Your task to perform on an android device: turn on airplane mode Image 0: 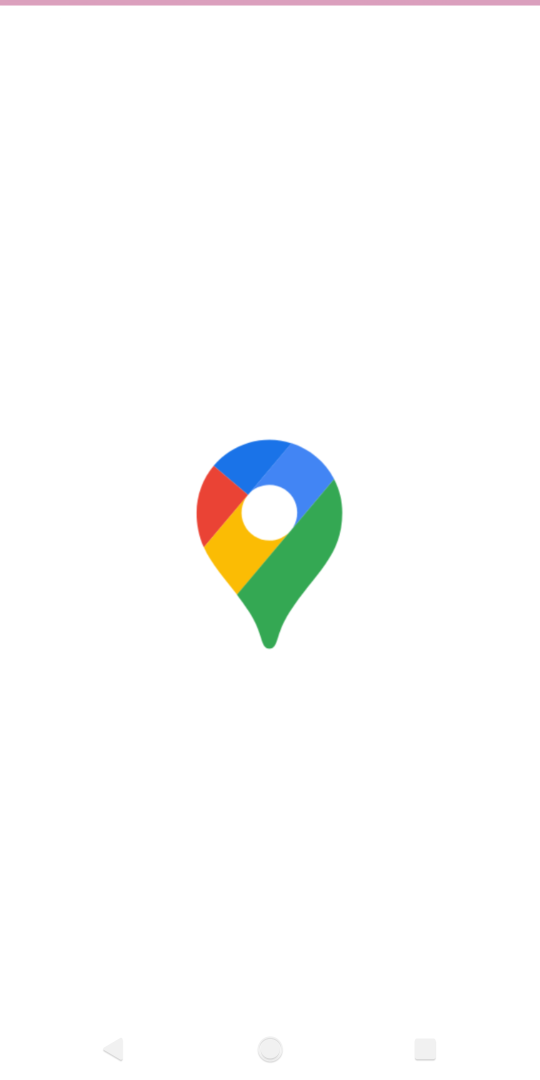
Step 0: press home button
Your task to perform on an android device: turn on airplane mode Image 1: 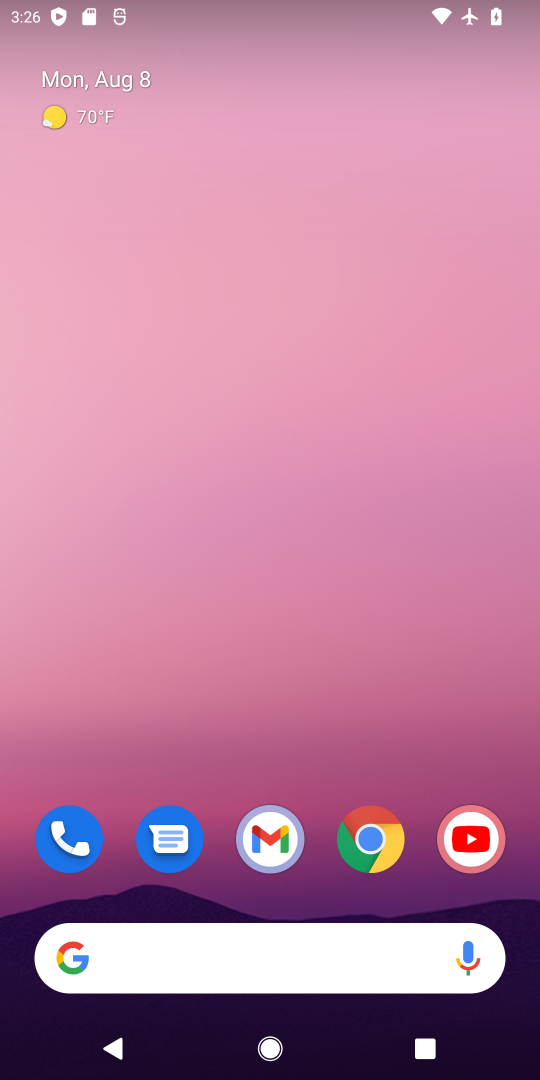
Step 1: drag from (422, 760) to (431, 157)
Your task to perform on an android device: turn on airplane mode Image 2: 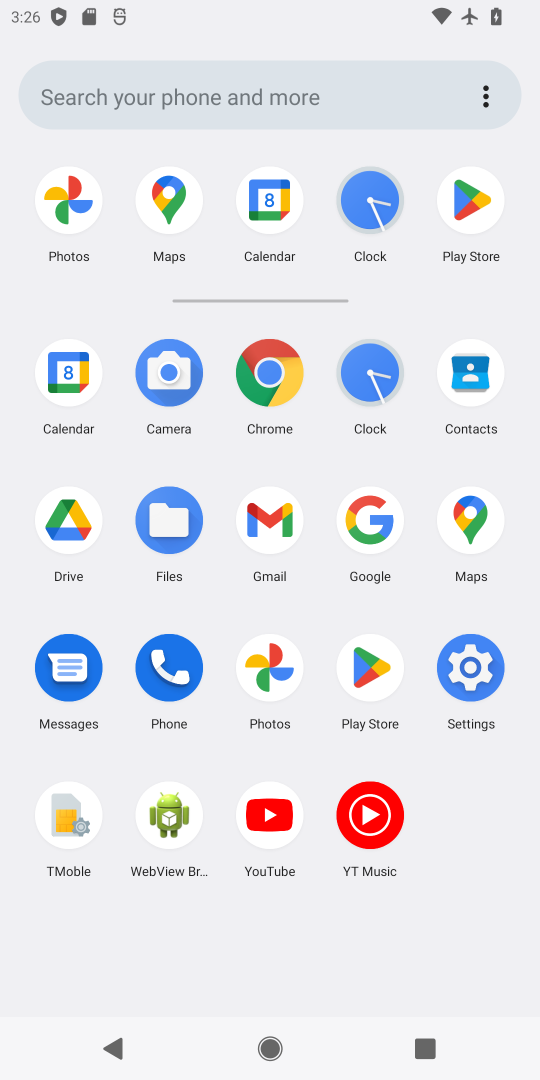
Step 2: click (471, 680)
Your task to perform on an android device: turn on airplane mode Image 3: 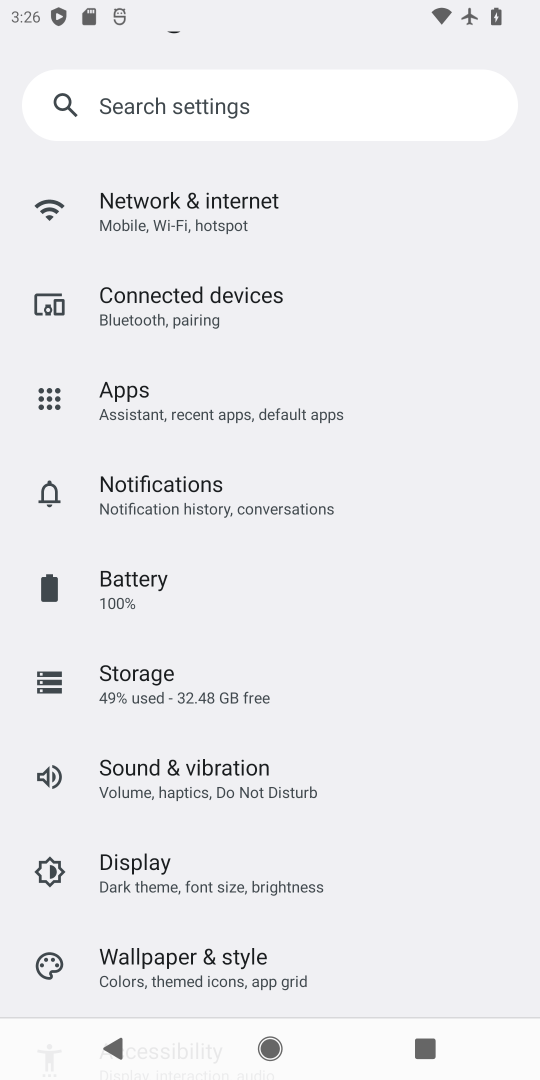
Step 3: drag from (414, 858) to (435, 728)
Your task to perform on an android device: turn on airplane mode Image 4: 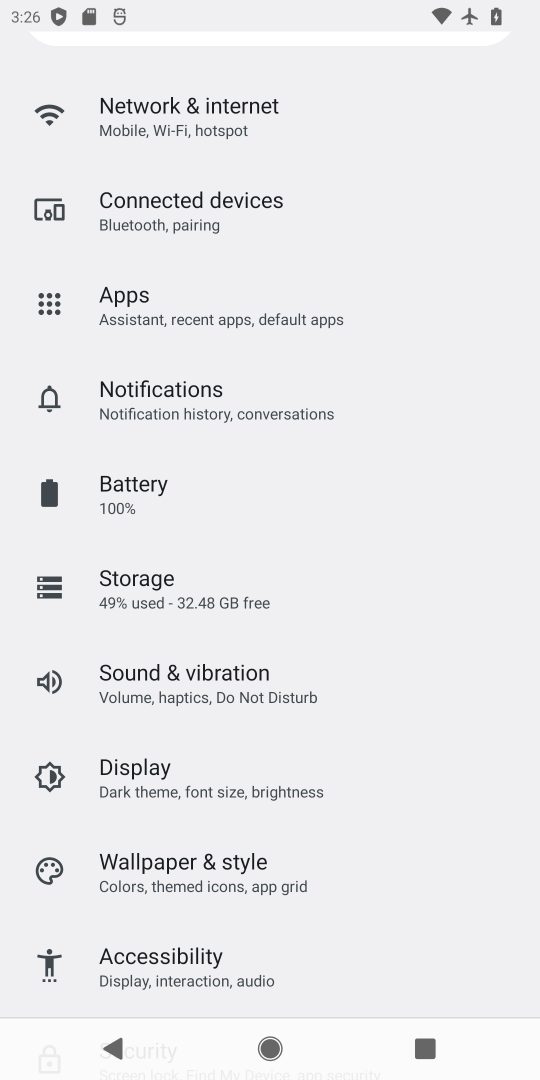
Step 4: drag from (446, 900) to (446, 696)
Your task to perform on an android device: turn on airplane mode Image 5: 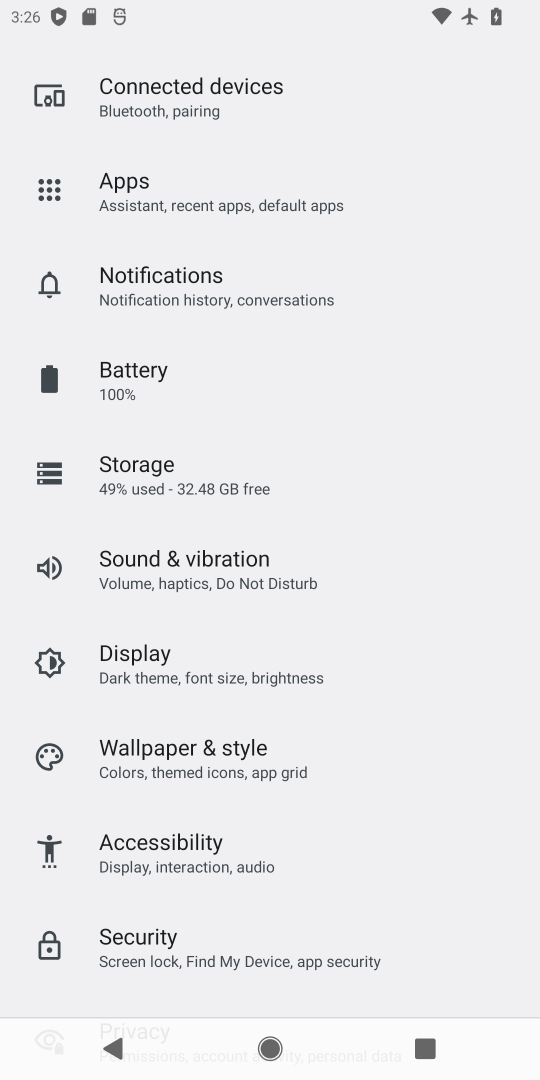
Step 5: drag from (449, 915) to (477, 552)
Your task to perform on an android device: turn on airplane mode Image 6: 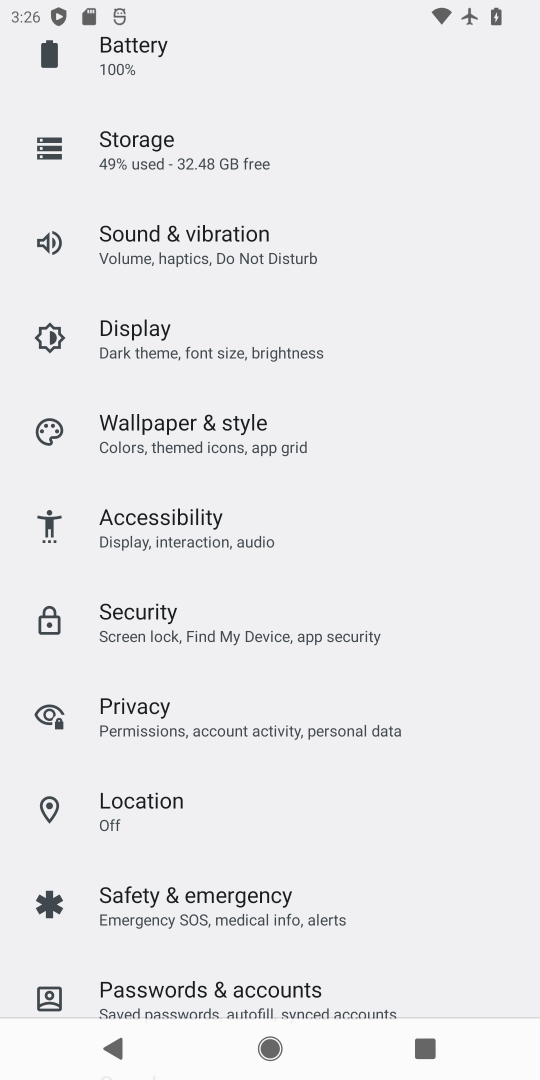
Step 6: drag from (468, 385) to (473, 561)
Your task to perform on an android device: turn on airplane mode Image 7: 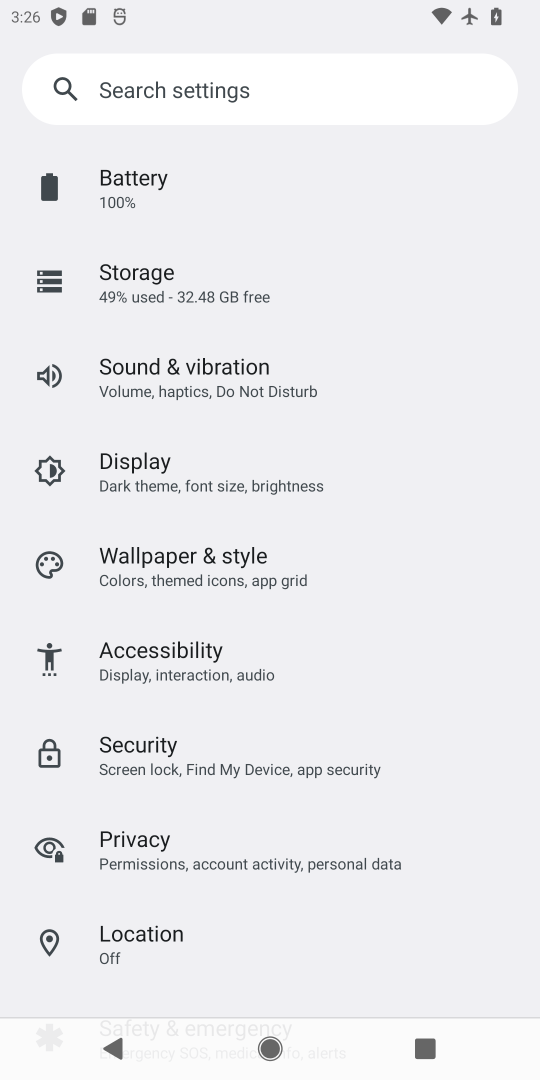
Step 7: drag from (455, 303) to (451, 502)
Your task to perform on an android device: turn on airplane mode Image 8: 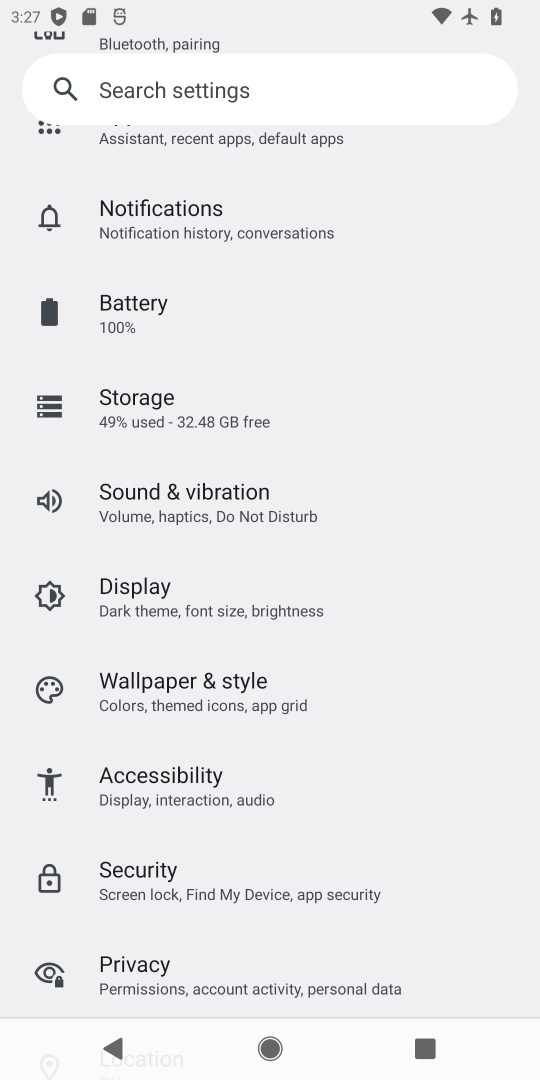
Step 8: drag from (436, 230) to (423, 470)
Your task to perform on an android device: turn on airplane mode Image 9: 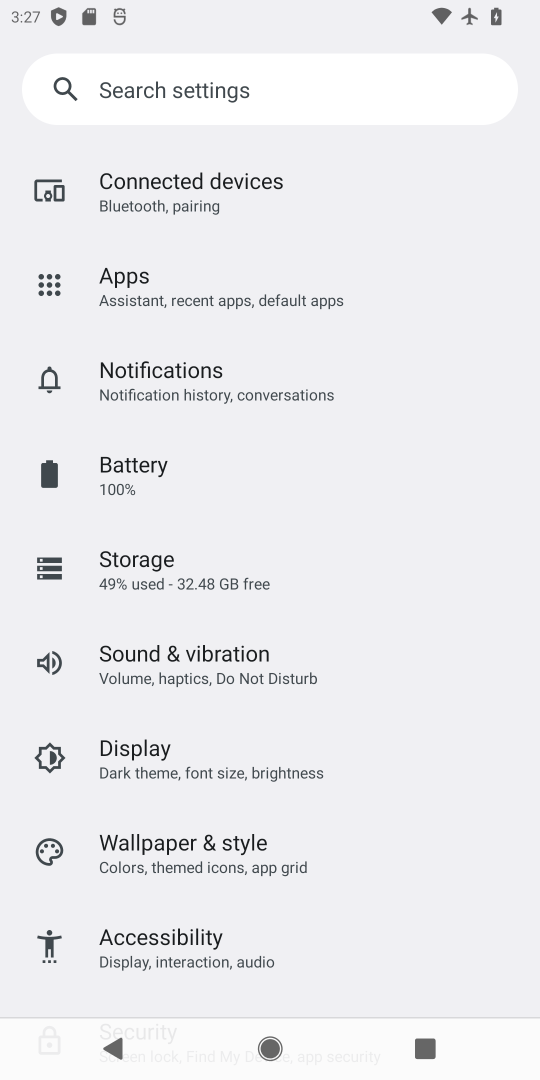
Step 9: drag from (428, 286) to (430, 616)
Your task to perform on an android device: turn on airplane mode Image 10: 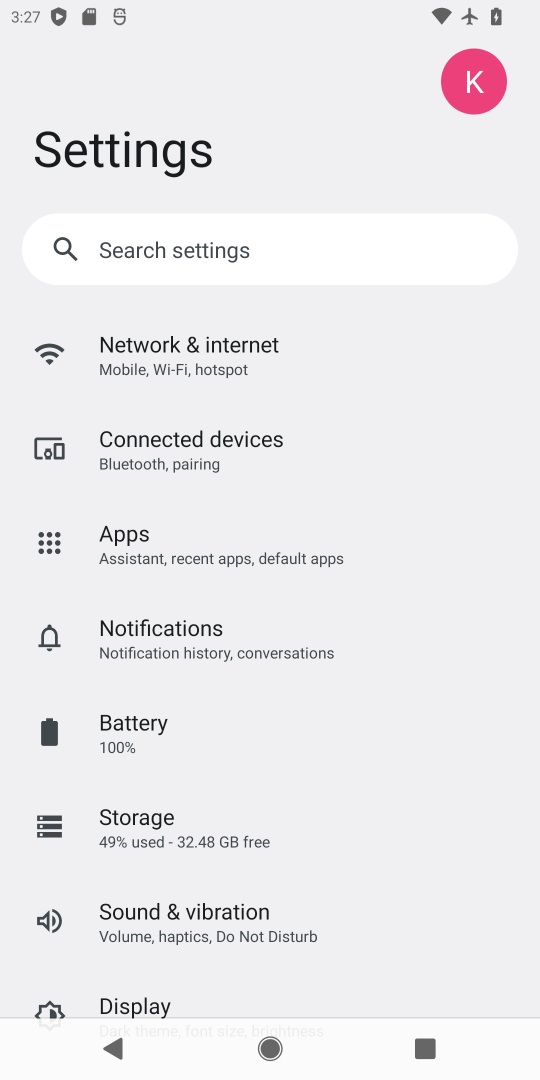
Step 10: click (362, 357)
Your task to perform on an android device: turn on airplane mode Image 11: 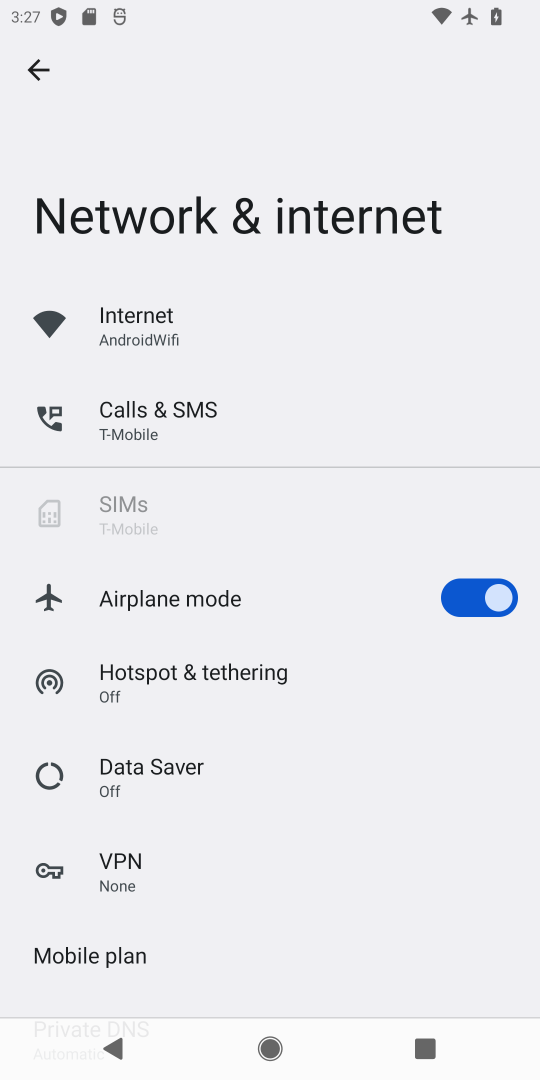
Step 11: task complete